Your task to perform on an android device: open app "PUBG MOBILE" (install if not already installed) Image 0: 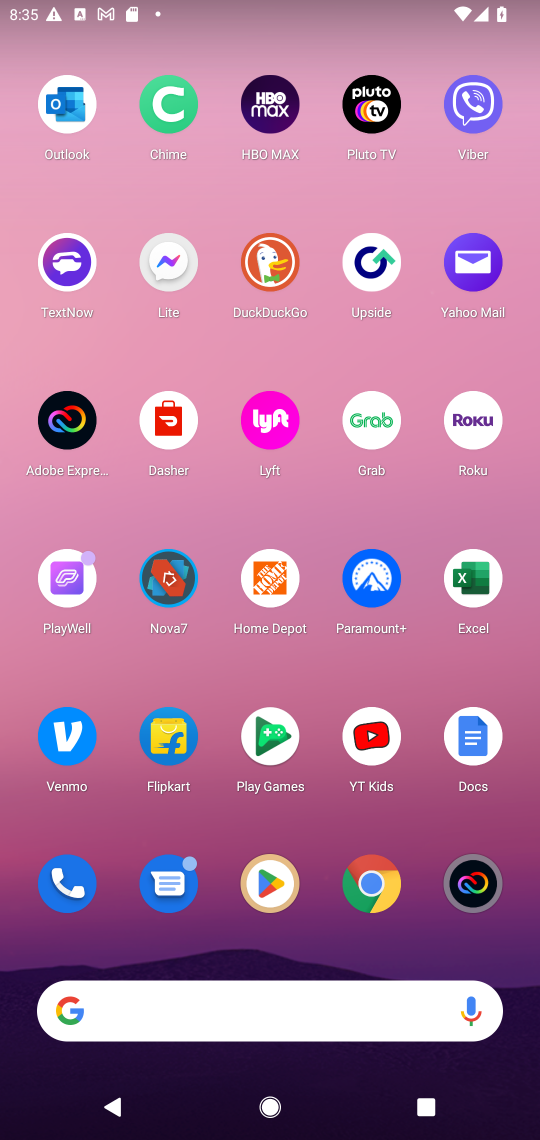
Step 0: click (271, 889)
Your task to perform on an android device: open app "PUBG MOBILE" (install if not already installed) Image 1: 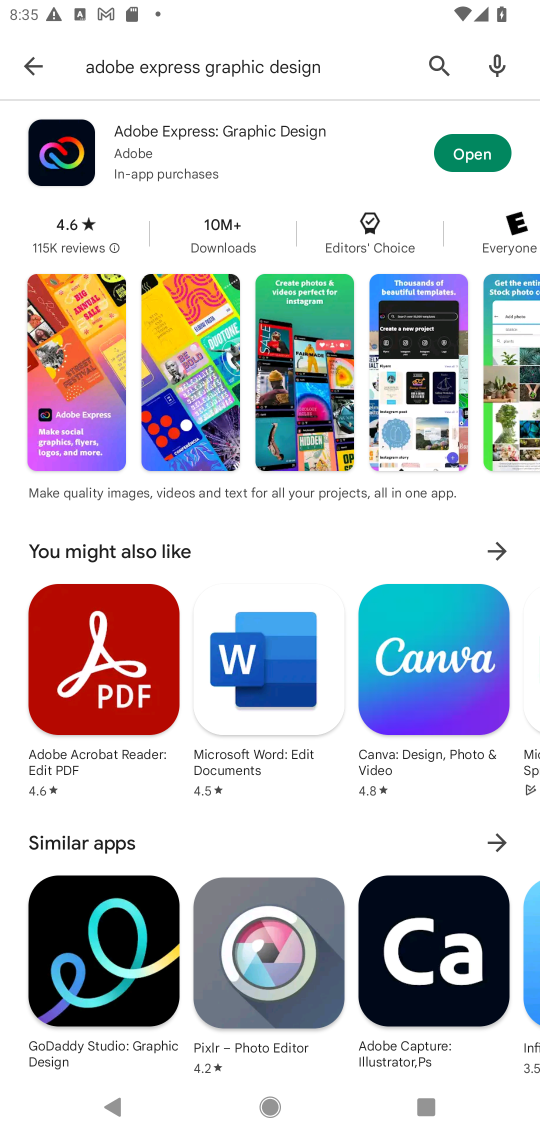
Step 1: click (448, 61)
Your task to perform on an android device: open app "PUBG MOBILE" (install if not already installed) Image 2: 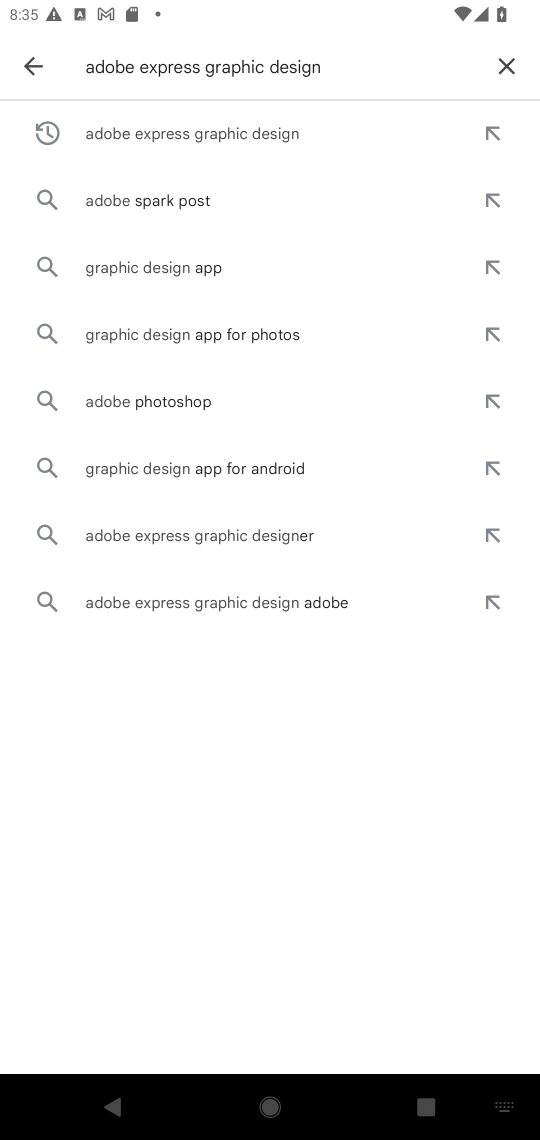
Step 2: click (507, 58)
Your task to perform on an android device: open app "PUBG MOBILE" (install if not already installed) Image 3: 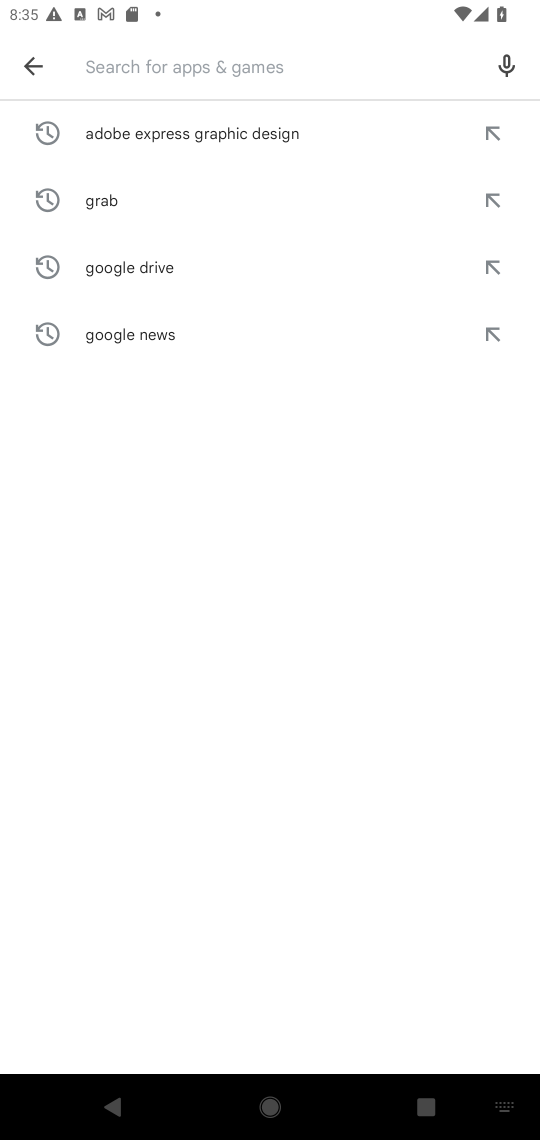
Step 3: type "PUBG MOBILE"
Your task to perform on an android device: open app "PUBG MOBILE" (install if not already installed) Image 4: 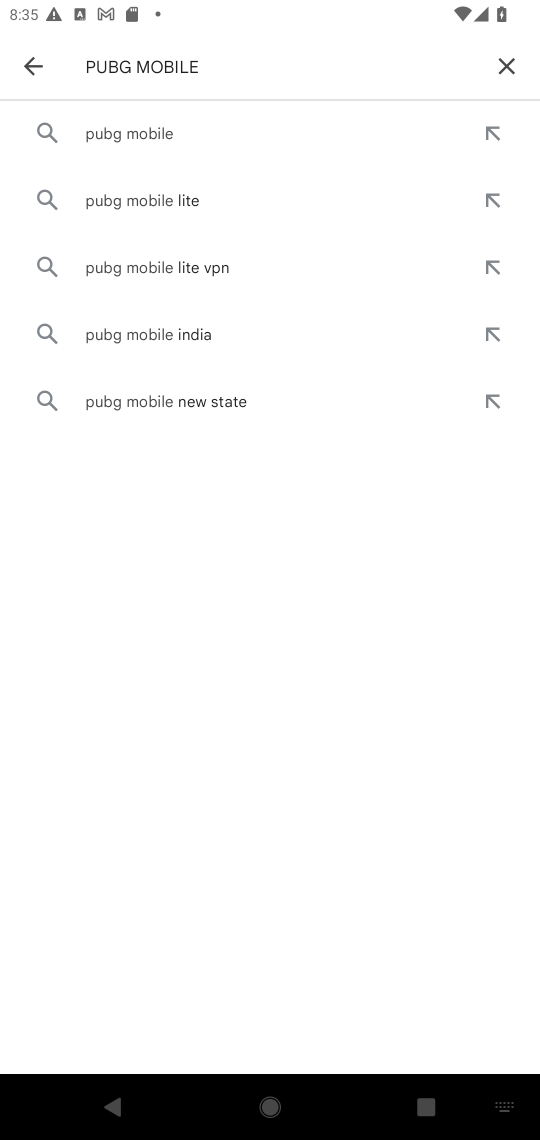
Step 4: click (106, 116)
Your task to perform on an android device: open app "PUBG MOBILE" (install if not already installed) Image 5: 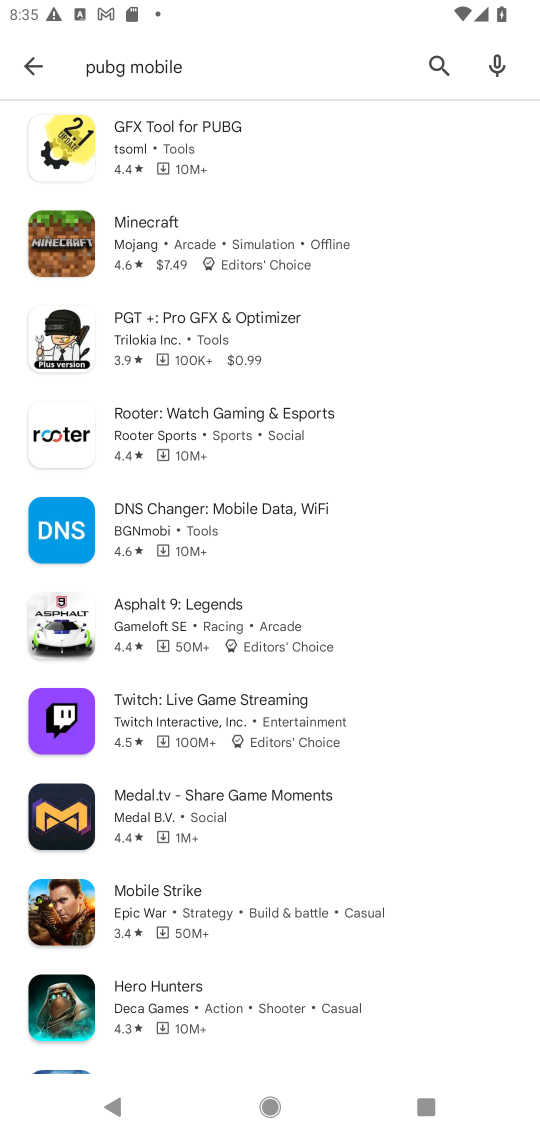
Step 5: task complete